Your task to perform on an android device: Go to notification settings Image 0: 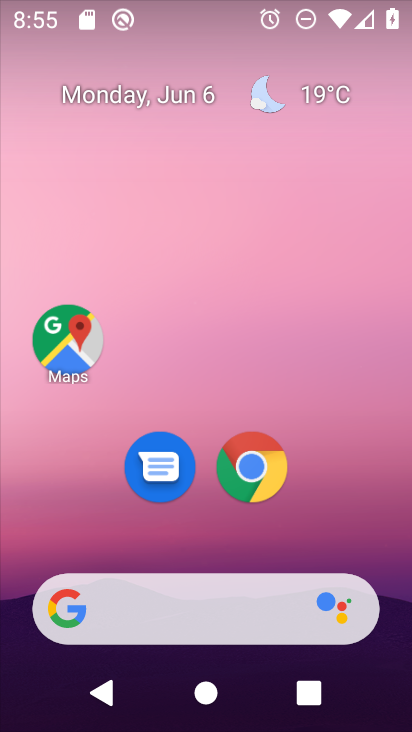
Step 0: drag from (332, 504) to (350, 120)
Your task to perform on an android device: Go to notification settings Image 1: 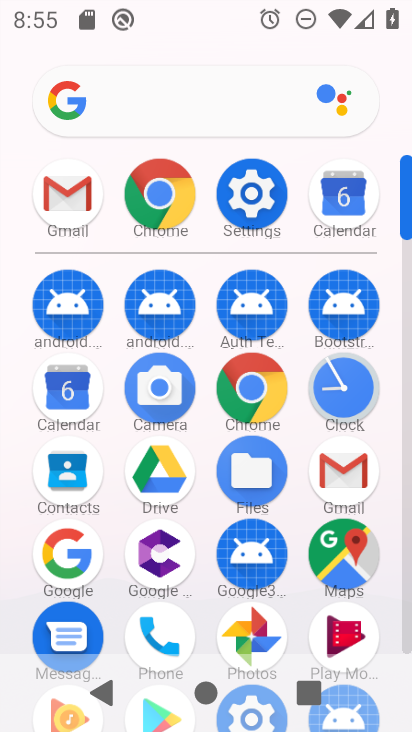
Step 1: click (257, 214)
Your task to perform on an android device: Go to notification settings Image 2: 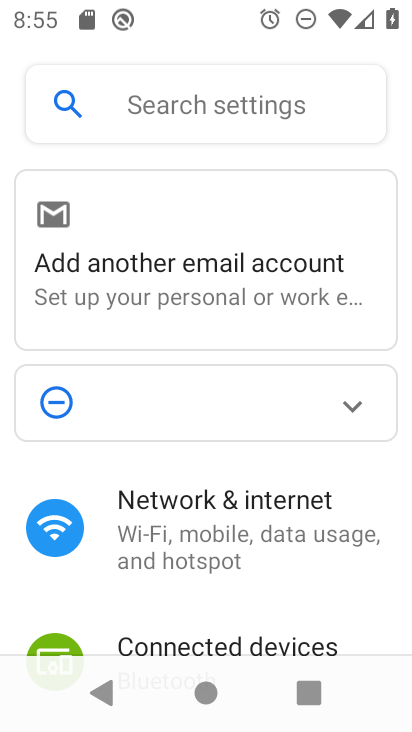
Step 2: drag from (346, 565) to (360, 452)
Your task to perform on an android device: Go to notification settings Image 3: 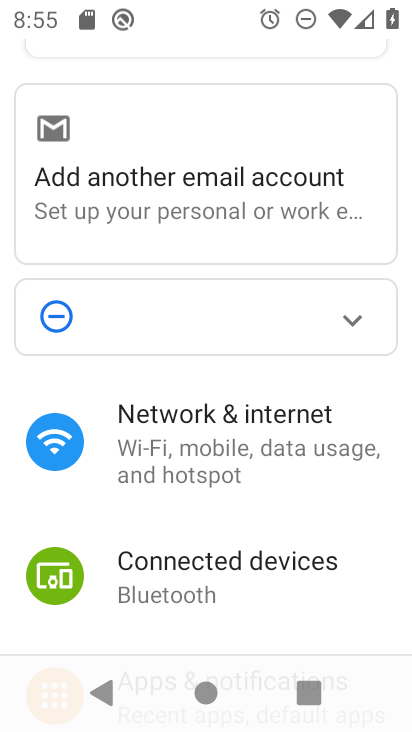
Step 3: drag from (356, 569) to (372, 449)
Your task to perform on an android device: Go to notification settings Image 4: 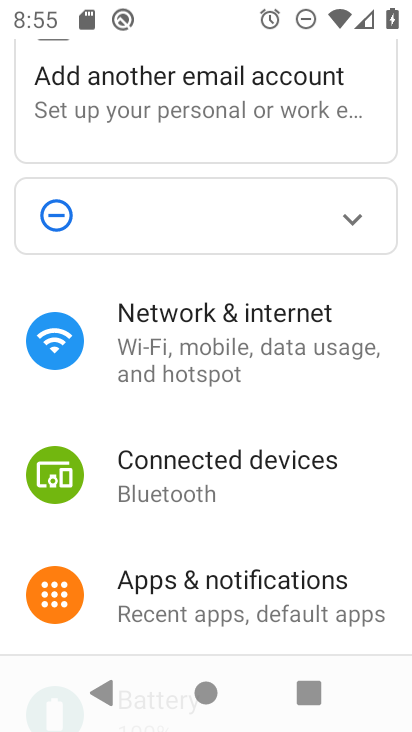
Step 4: drag from (367, 528) to (369, 407)
Your task to perform on an android device: Go to notification settings Image 5: 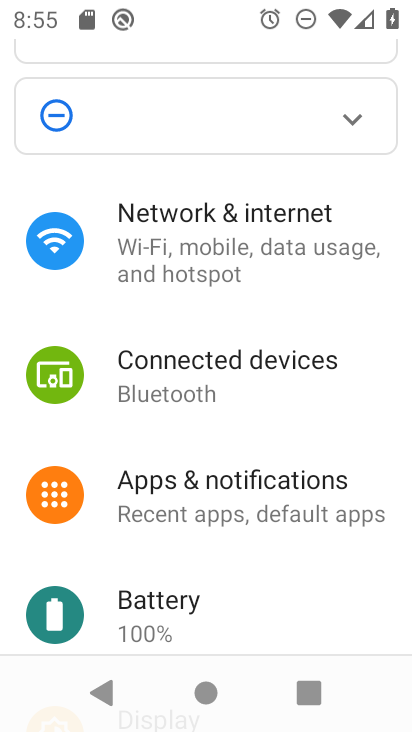
Step 5: drag from (348, 577) to (358, 451)
Your task to perform on an android device: Go to notification settings Image 6: 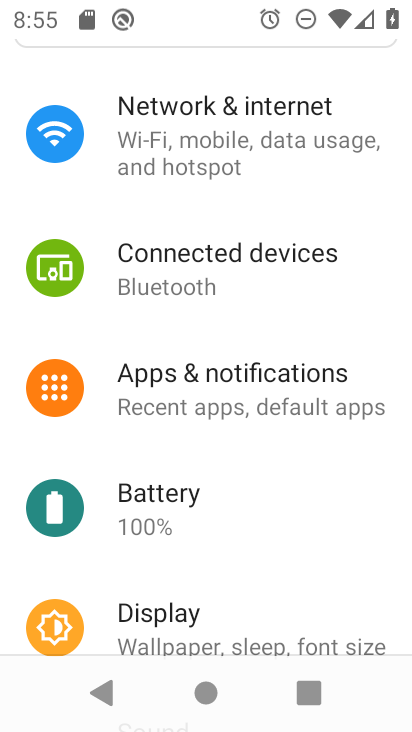
Step 6: click (298, 395)
Your task to perform on an android device: Go to notification settings Image 7: 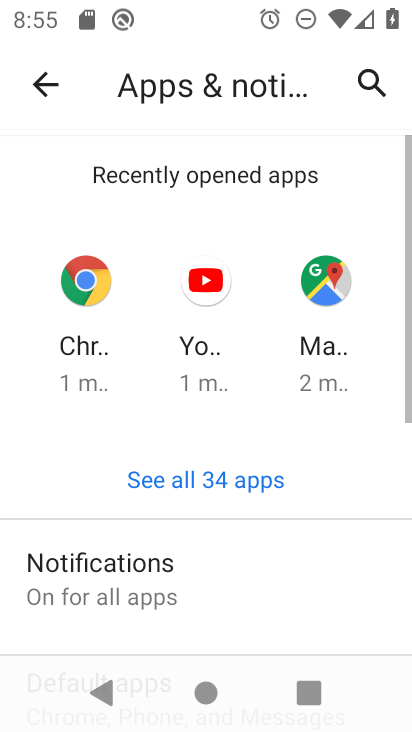
Step 7: drag from (264, 561) to (277, 441)
Your task to perform on an android device: Go to notification settings Image 8: 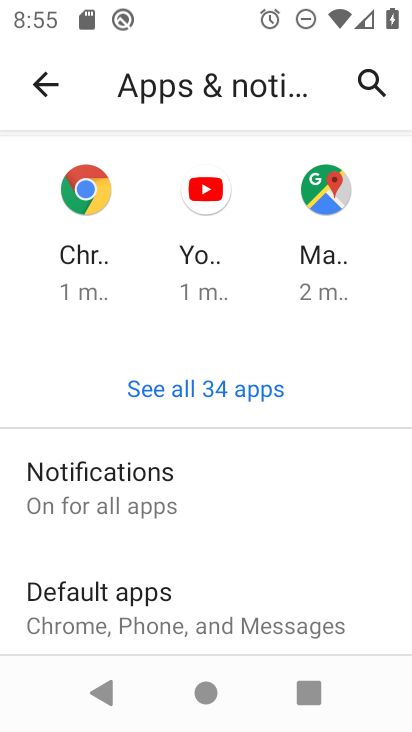
Step 8: drag from (268, 568) to (284, 427)
Your task to perform on an android device: Go to notification settings Image 9: 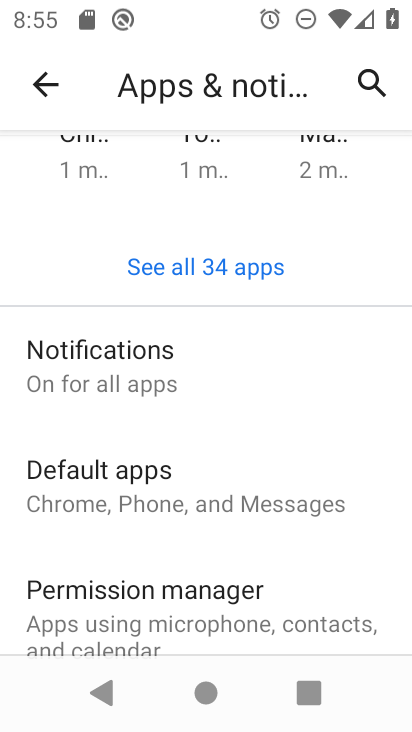
Step 9: click (163, 370)
Your task to perform on an android device: Go to notification settings Image 10: 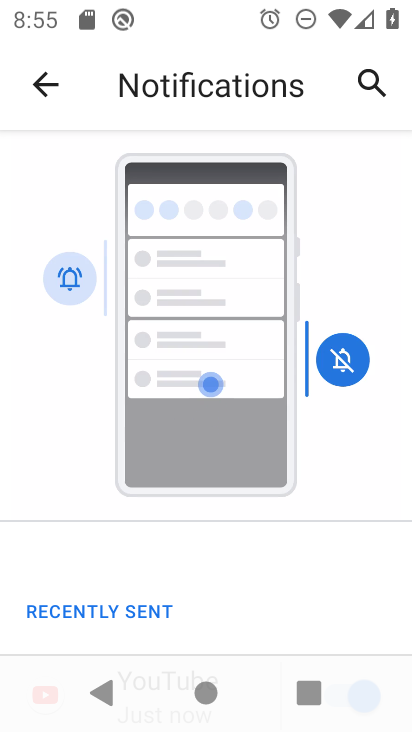
Step 10: task complete